Your task to perform on an android device: toggle data saver in the chrome app Image 0: 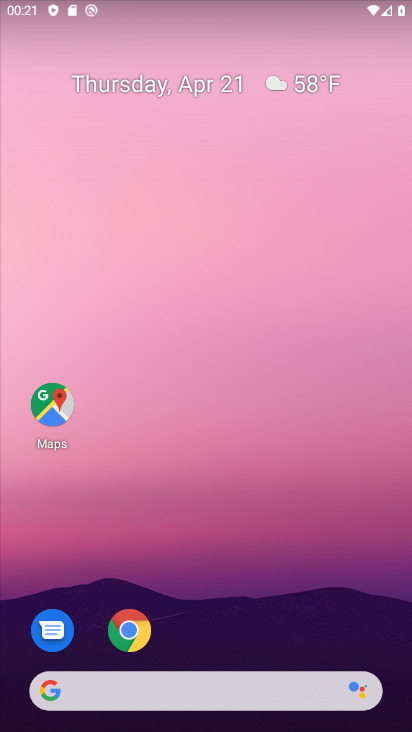
Step 0: drag from (213, 687) to (306, 202)
Your task to perform on an android device: toggle data saver in the chrome app Image 1: 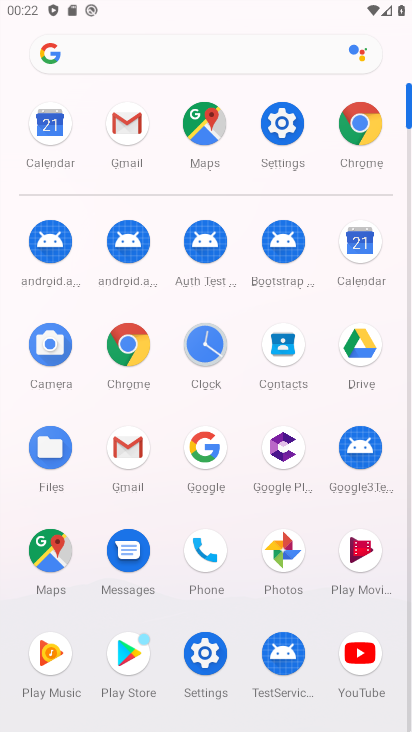
Step 1: click (361, 121)
Your task to perform on an android device: toggle data saver in the chrome app Image 2: 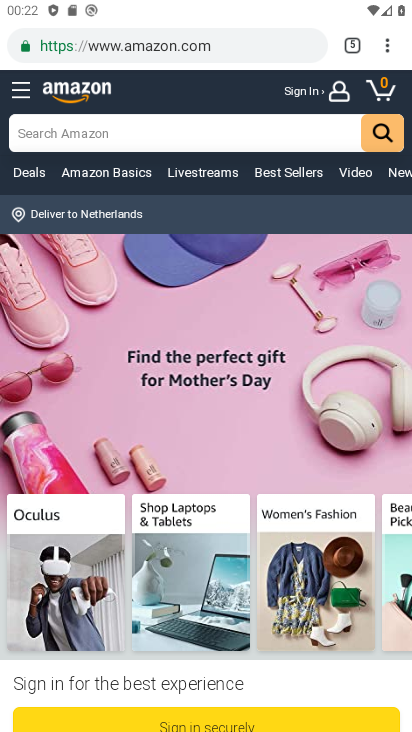
Step 2: click (382, 52)
Your task to perform on an android device: toggle data saver in the chrome app Image 3: 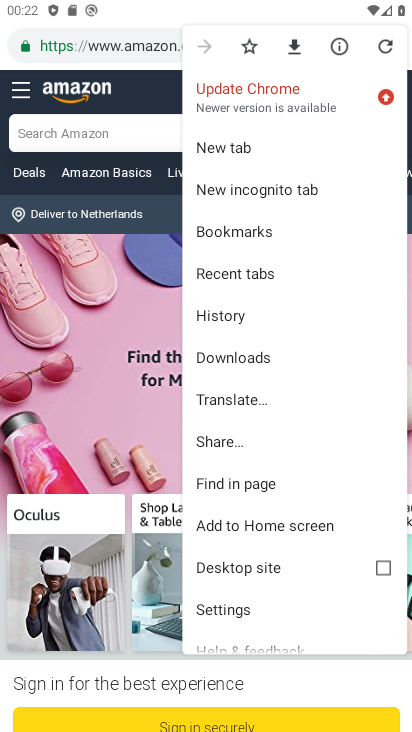
Step 3: click (232, 613)
Your task to perform on an android device: toggle data saver in the chrome app Image 4: 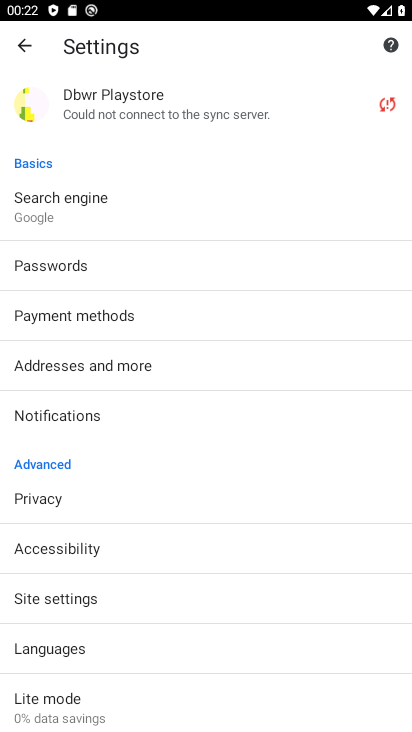
Step 4: click (62, 704)
Your task to perform on an android device: toggle data saver in the chrome app Image 5: 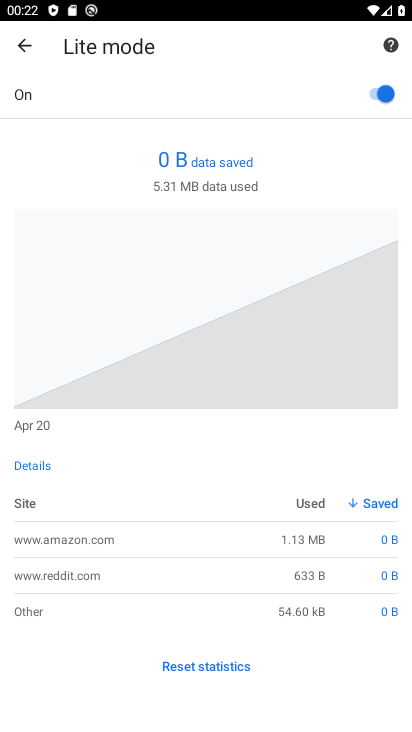
Step 5: click (376, 93)
Your task to perform on an android device: toggle data saver in the chrome app Image 6: 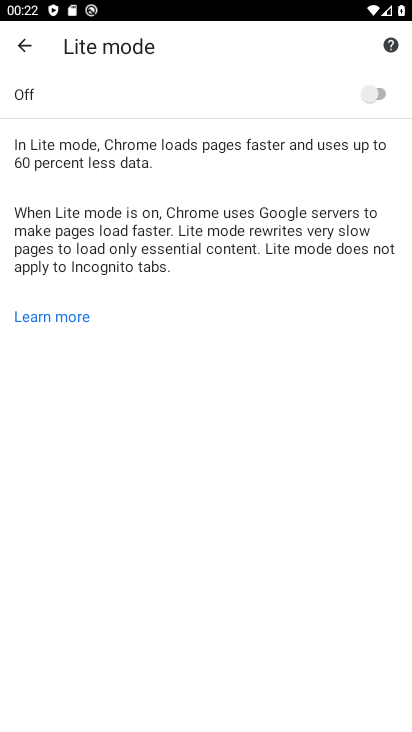
Step 6: task complete